Your task to perform on an android device: turn on notifications settings in the gmail app Image 0: 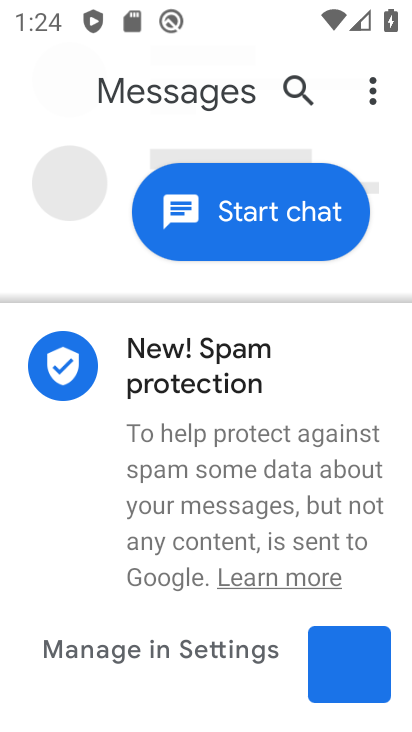
Step 0: press home button
Your task to perform on an android device: turn on notifications settings in the gmail app Image 1: 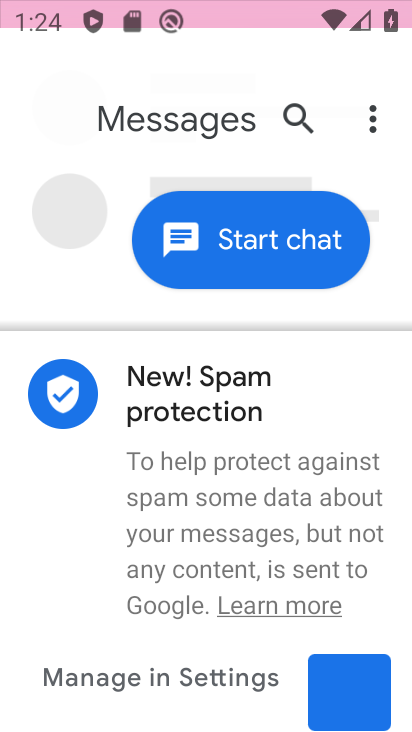
Step 1: press home button
Your task to perform on an android device: turn on notifications settings in the gmail app Image 2: 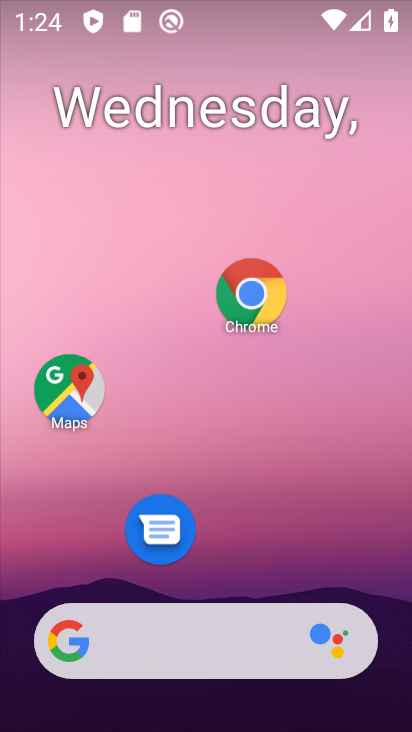
Step 2: drag from (253, 527) to (341, 92)
Your task to perform on an android device: turn on notifications settings in the gmail app Image 3: 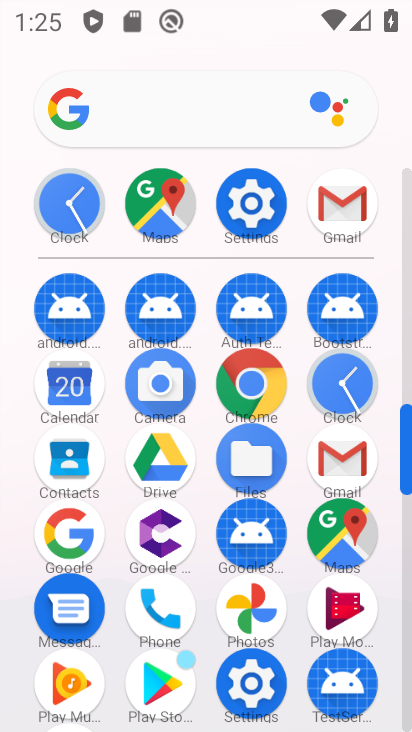
Step 3: drag from (199, 504) to (262, 216)
Your task to perform on an android device: turn on notifications settings in the gmail app Image 4: 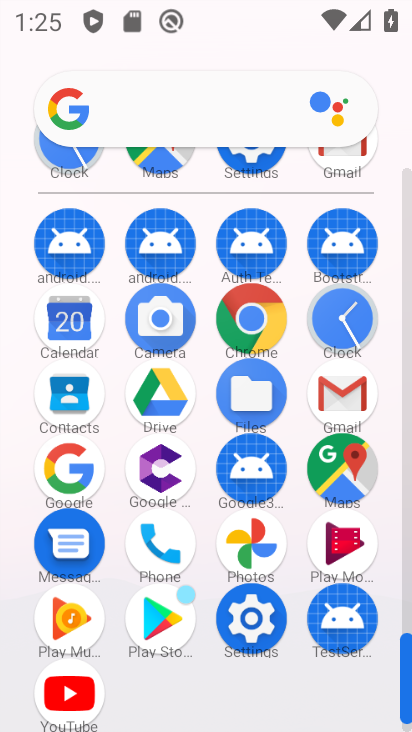
Step 4: click (330, 402)
Your task to perform on an android device: turn on notifications settings in the gmail app Image 5: 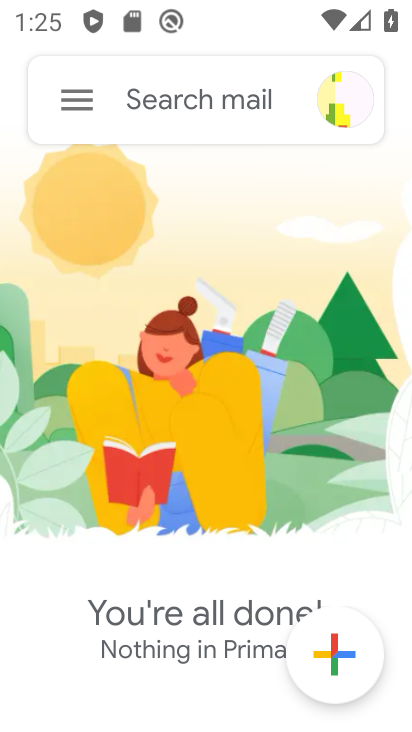
Step 5: click (74, 115)
Your task to perform on an android device: turn on notifications settings in the gmail app Image 6: 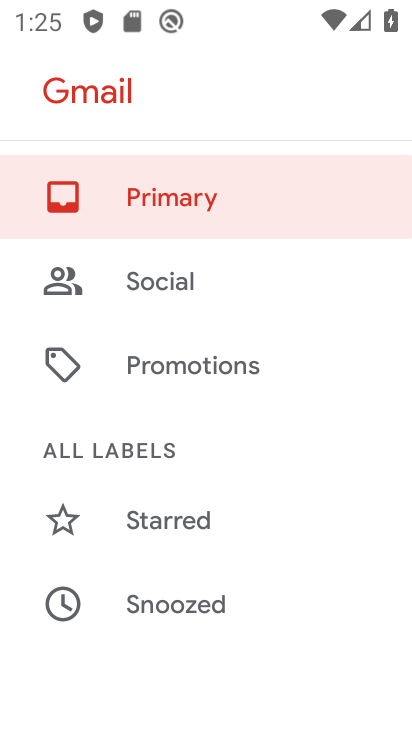
Step 6: drag from (158, 577) to (258, 168)
Your task to perform on an android device: turn on notifications settings in the gmail app Image 7: 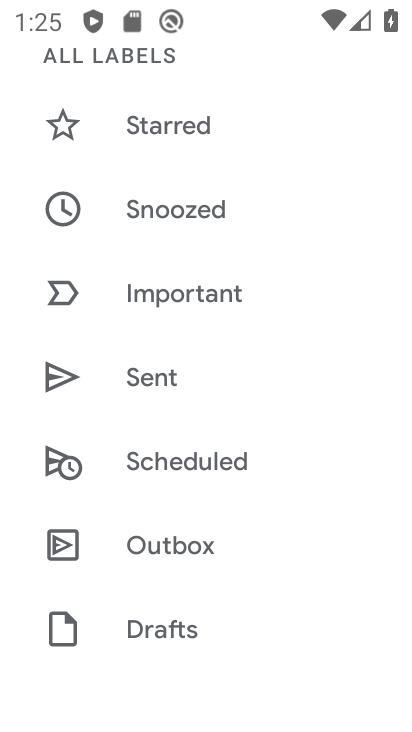
Step 7: drag from (222, 422) to (331, 127)
Your task to perform on an android device: turn on notifications settings in the gmail app Image 8: 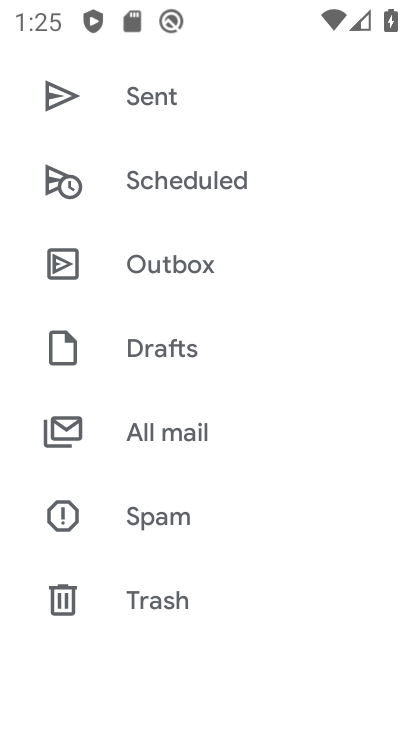
Step 8: drag from (147, 524) to (234, 141)
Your task to perform on an android device: turn on notifications settings in the gmail app Image 9: 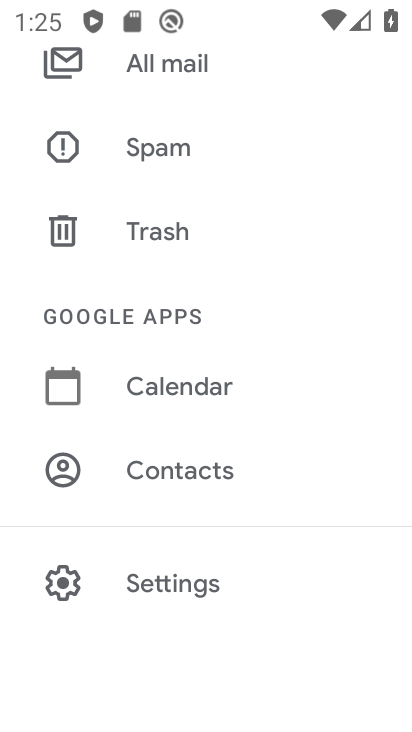
Step 9: click (160, 593)
Your task to perform on an android device: turn on notifications settings in the gmail app Image 10: 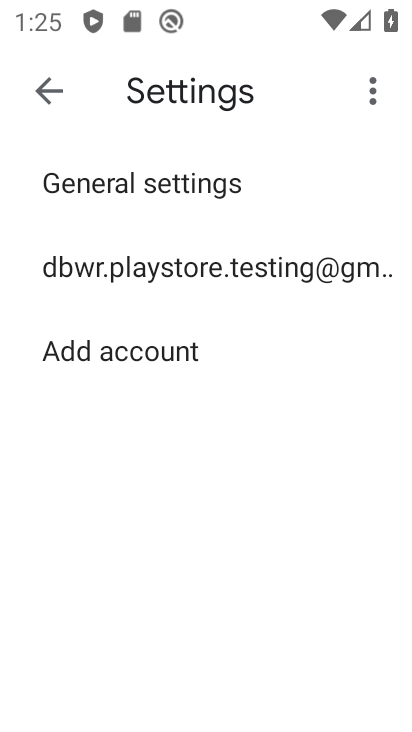
Step 10: click (224, 188)
Your task to perform on an android device: turn on notifications settings in the gmail app Image 11: 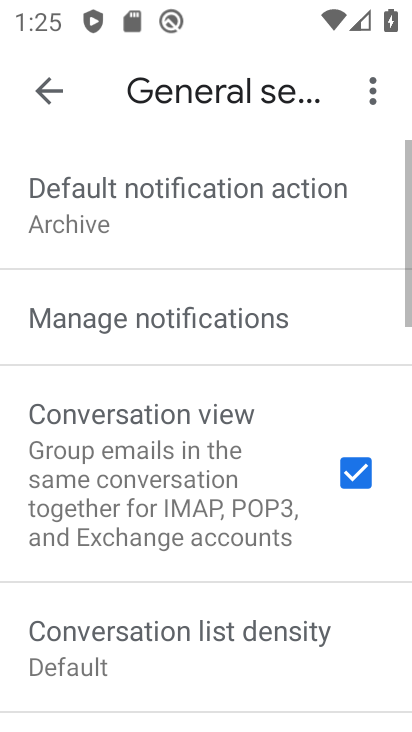
Step 11: click (180, 320)
Your task to perform on an android device: turn on notifications settings in the gmail app Image 12: 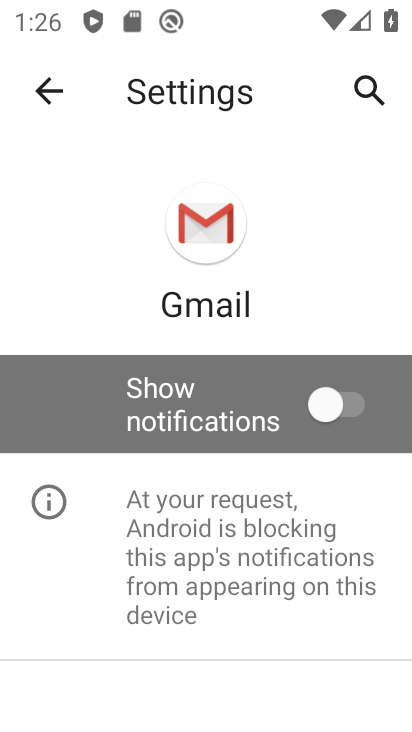
Step 12: click (348, 416)
Your task to perform on an android device: turn on notifications settings in the gmail app Image 13: 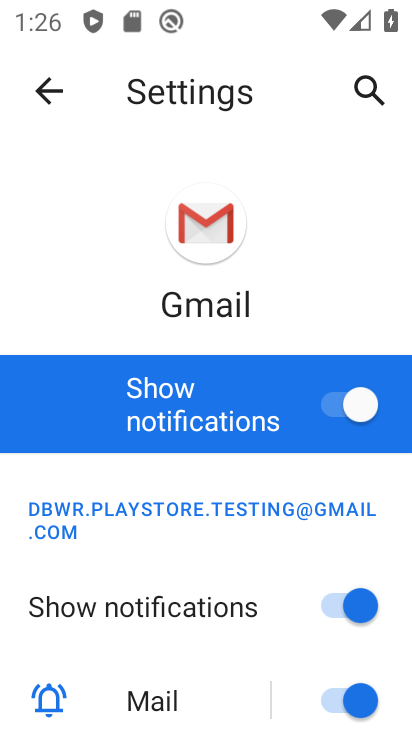
Step 13: task complete